Your task to perform on an android device: open sync settings in chrome Image 0: 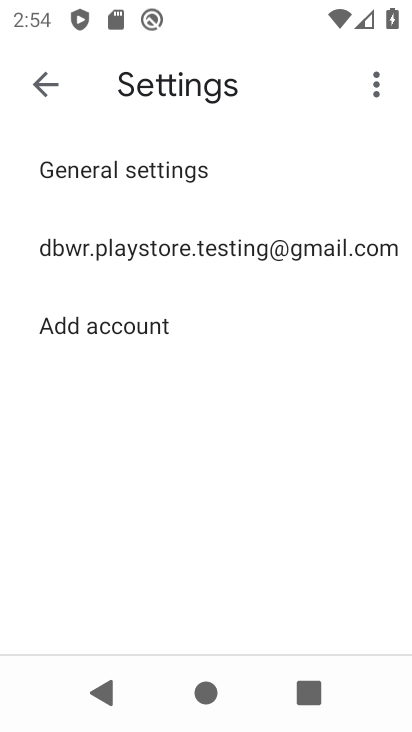
Step 0: press home button
Your task to perform on an android device: open sync settings in chrome Image 1: 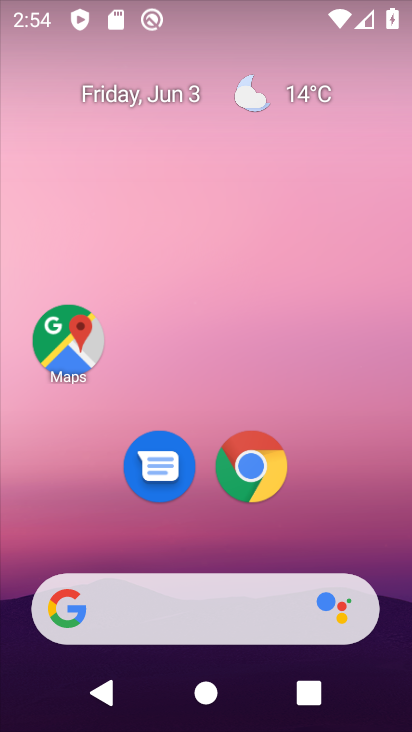
Step 1: click (249, 457)
Your task to perform on an android device: open sync settings in chrome Image 2: 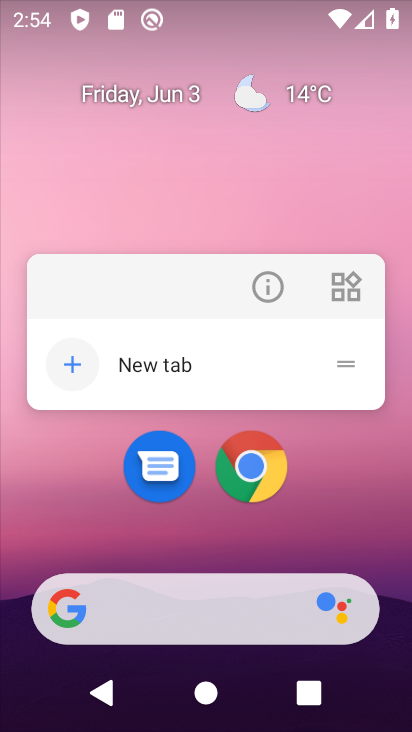
Step 2: click (253, 465)
Your task to perform on an android device: open sync settings in chrome Image 3: 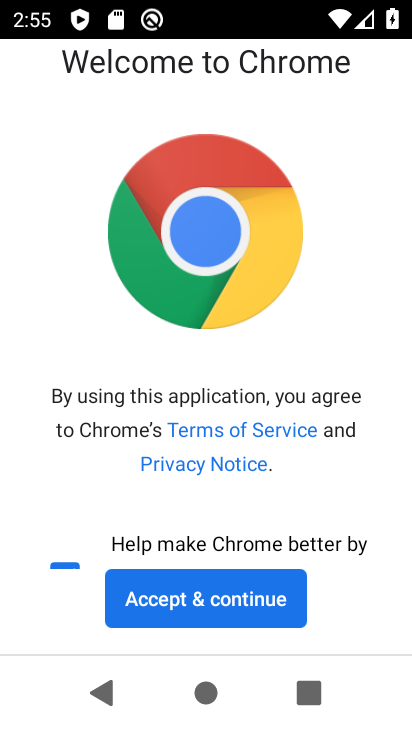
Step 3: click (180, 607)
Your task to perform on an android device: open sync settings in chrome Image 4: 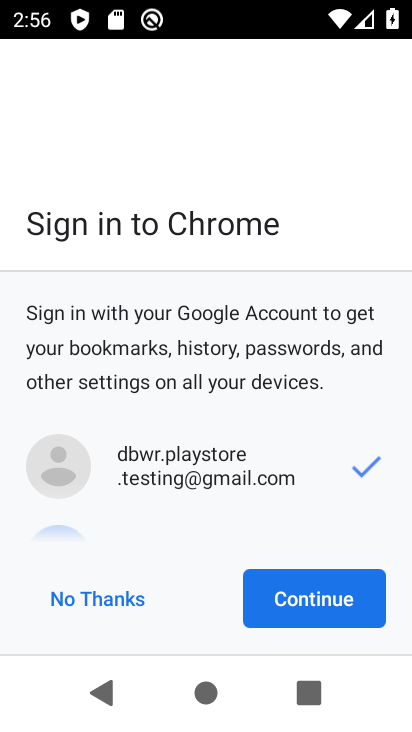
Step 4: click (345, 593)
Your task to perform on an android device: open sync settings in chrome Image 5: 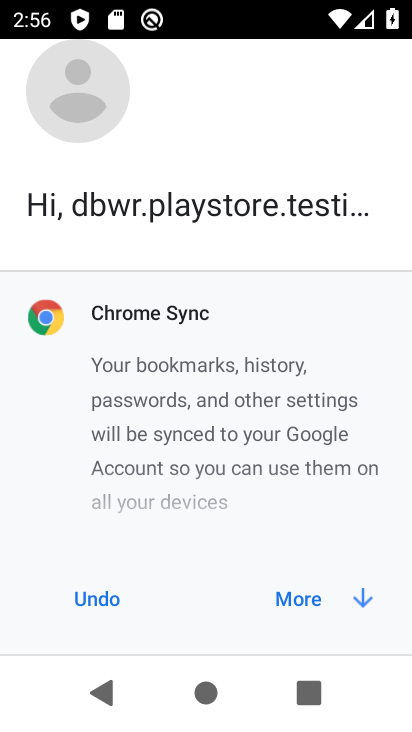
Step 5: click (335, 596)
Your task to perform on an android device: open sync settings in chrome Image 6: 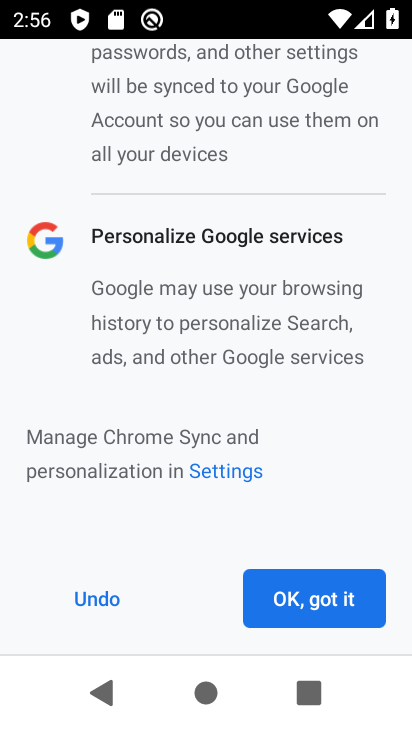
Step 6: click (323, 596)
Your task to perform on an android device: open sync settings in chrome Image 7: 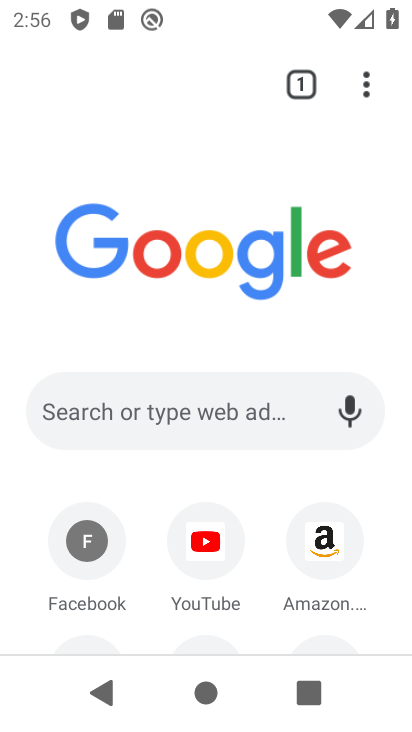
Step 7: click (359, 85)
Your task to perform on an android device: open sync settings in chrome Image 8: 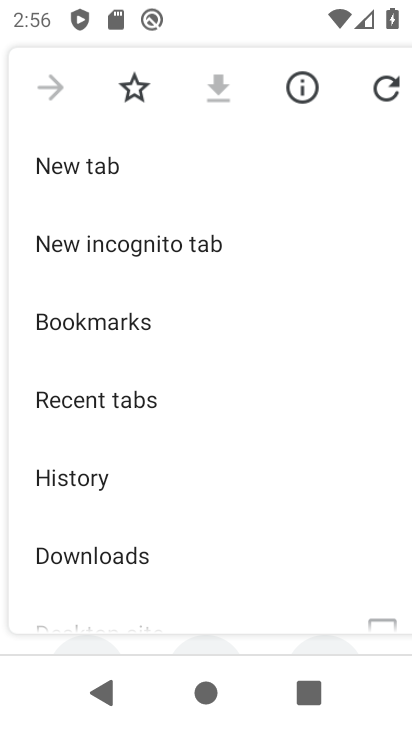
Step 8: drag from (193, 556) to (242, 53)
Your task to perform on an android device: open sync settings in chrome Image 9: 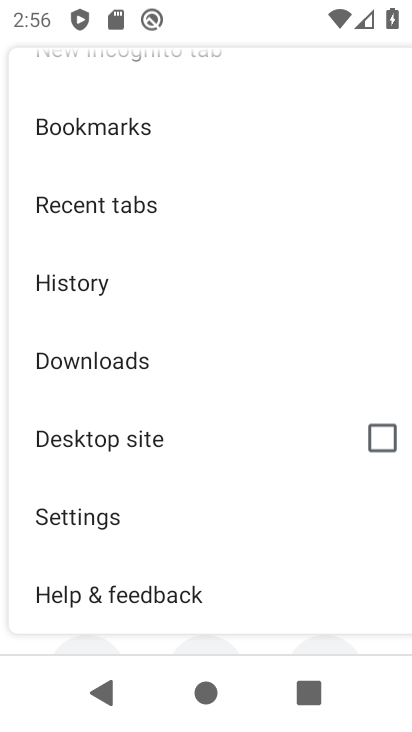
Step 9: click (130, 510)
Your task to perform on an android device: open sync settings in chrome Image 10: 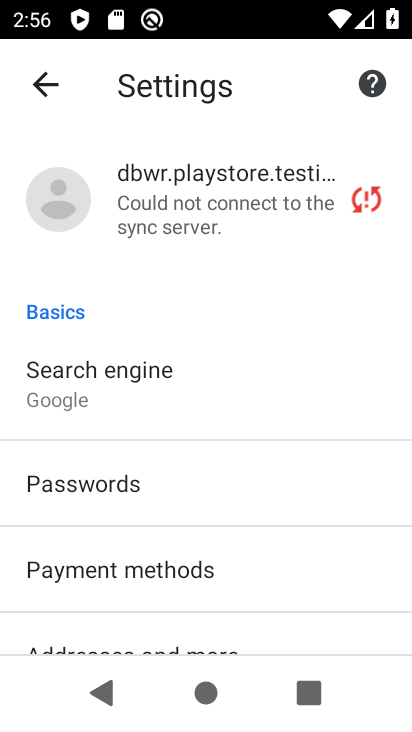
Step 10: drag from (241, 626) to (282, 63)
Your task to perform on an android device: open sync settings in chrome Image 11: 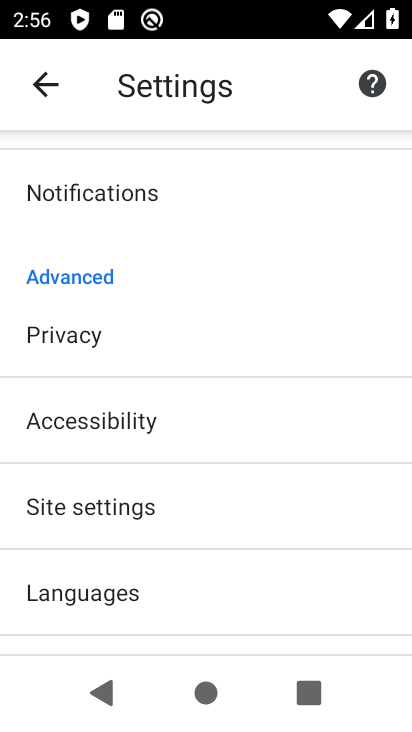
Step 11: drag from (214, 585) to (226, 147)
Your task to perform on an android device: open sync settings in chrome Image 12: 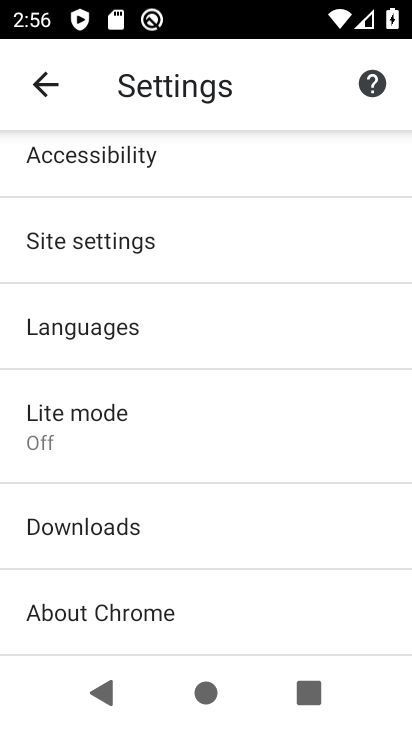
Step 12: drag from (175, 178) to (176, 718)
Your task to perform on an android device: open sync settings in chrome Image 13: 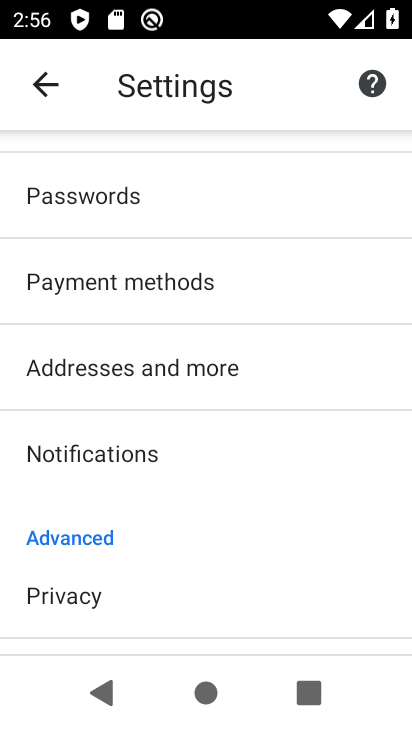
Step 13: drag from (168, 166) to (212, 680)
Your task to perform on an android device: open sync settings in chrome Image 14: 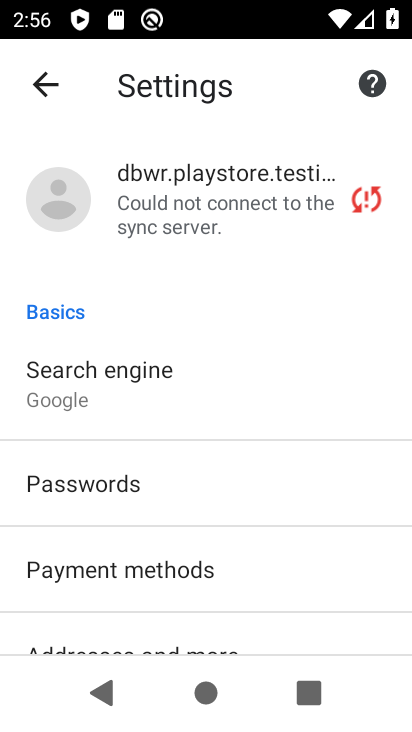
Step 14: click (181, 221)
Your task to perform on an android device: open sync settings in chrome Image 15: 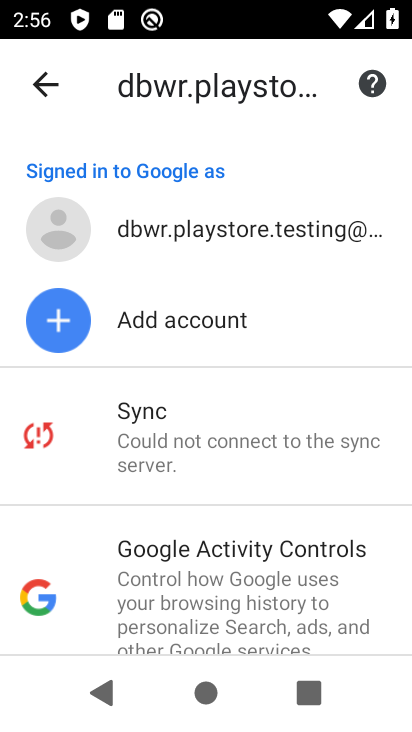
Step 15: click (229, 461)
Your task to perform on an android device: open sync settings in chrome Image 16: 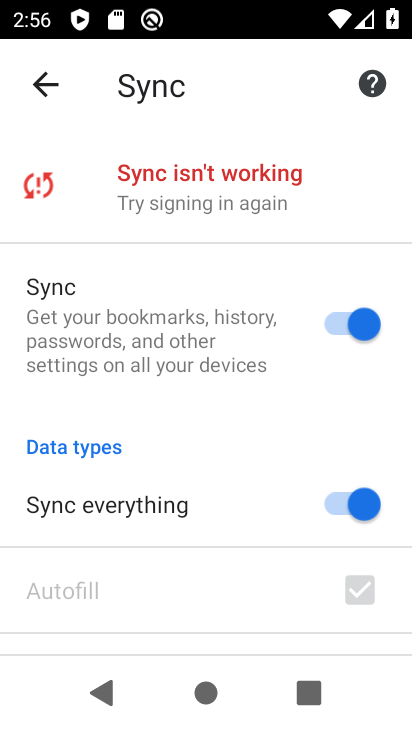
Step 16: task complete